Your task to perform on an android device: see creations saved in the google photos Image 0: 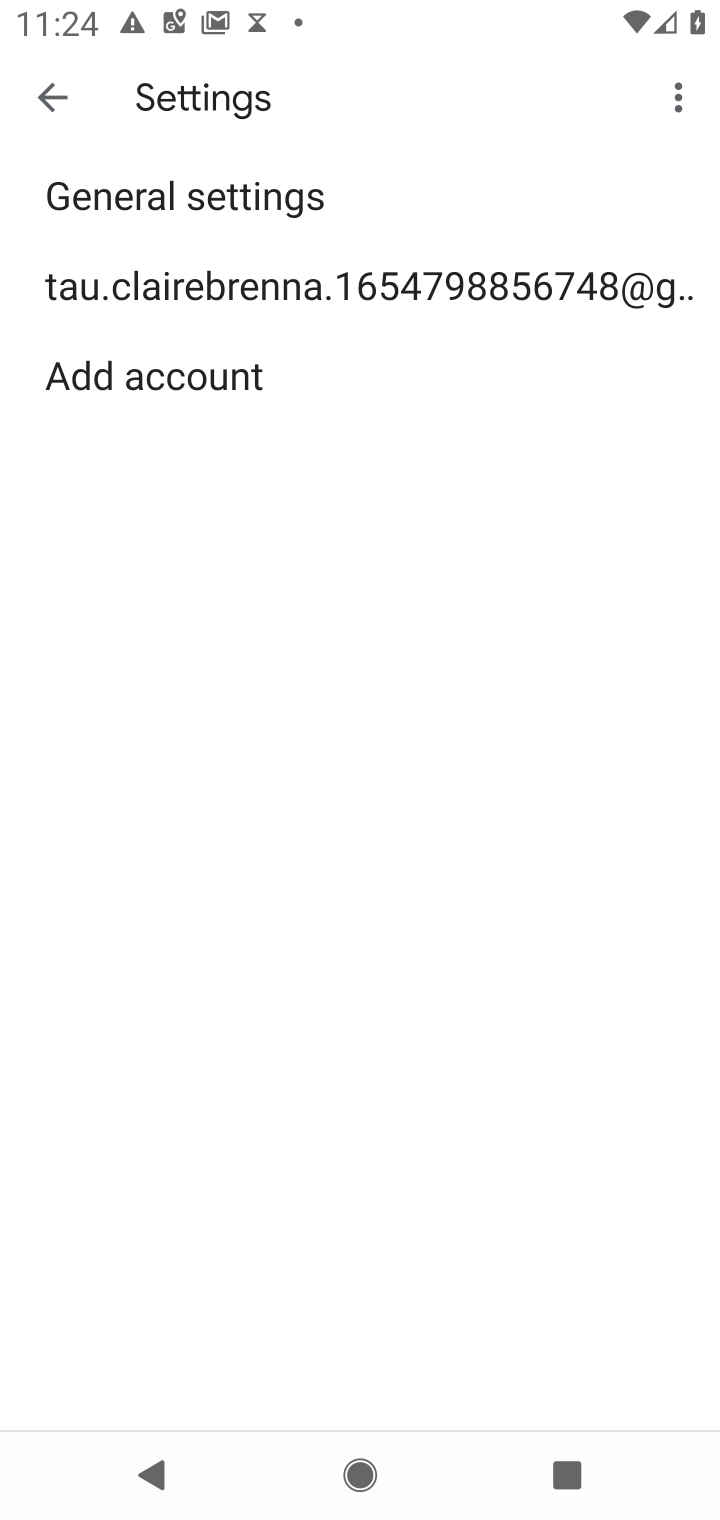
Step 0: press home button
Your task to perform on an android device: see creations saved in the google photos Image 1: 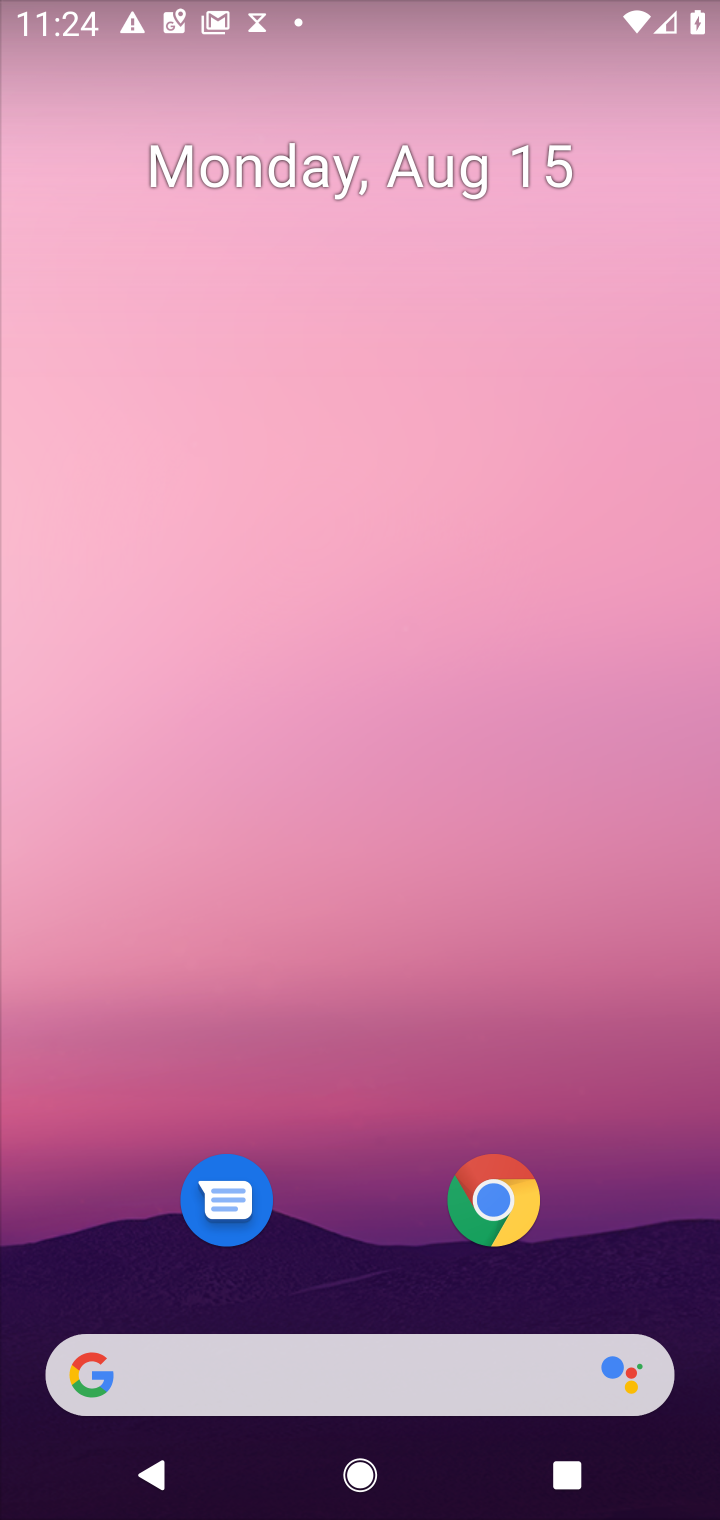
Step 1: drag from (354, 1122) to (361, 113)
Your task to perform on an android device: see creations saved in the google photos Image 2: 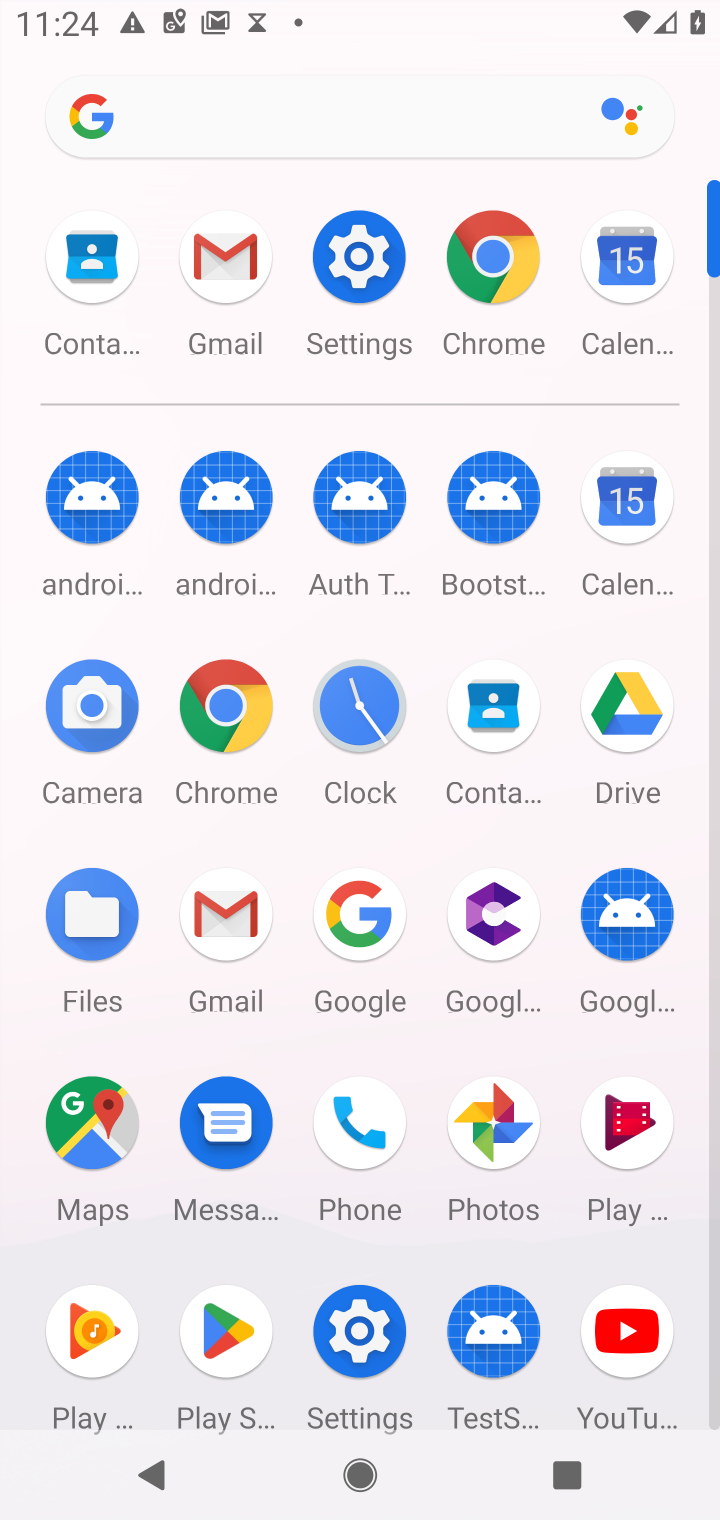
Step 2: click (484, 1147)
Your task to perform on an android device: see creations saved in the google photos Image 3: 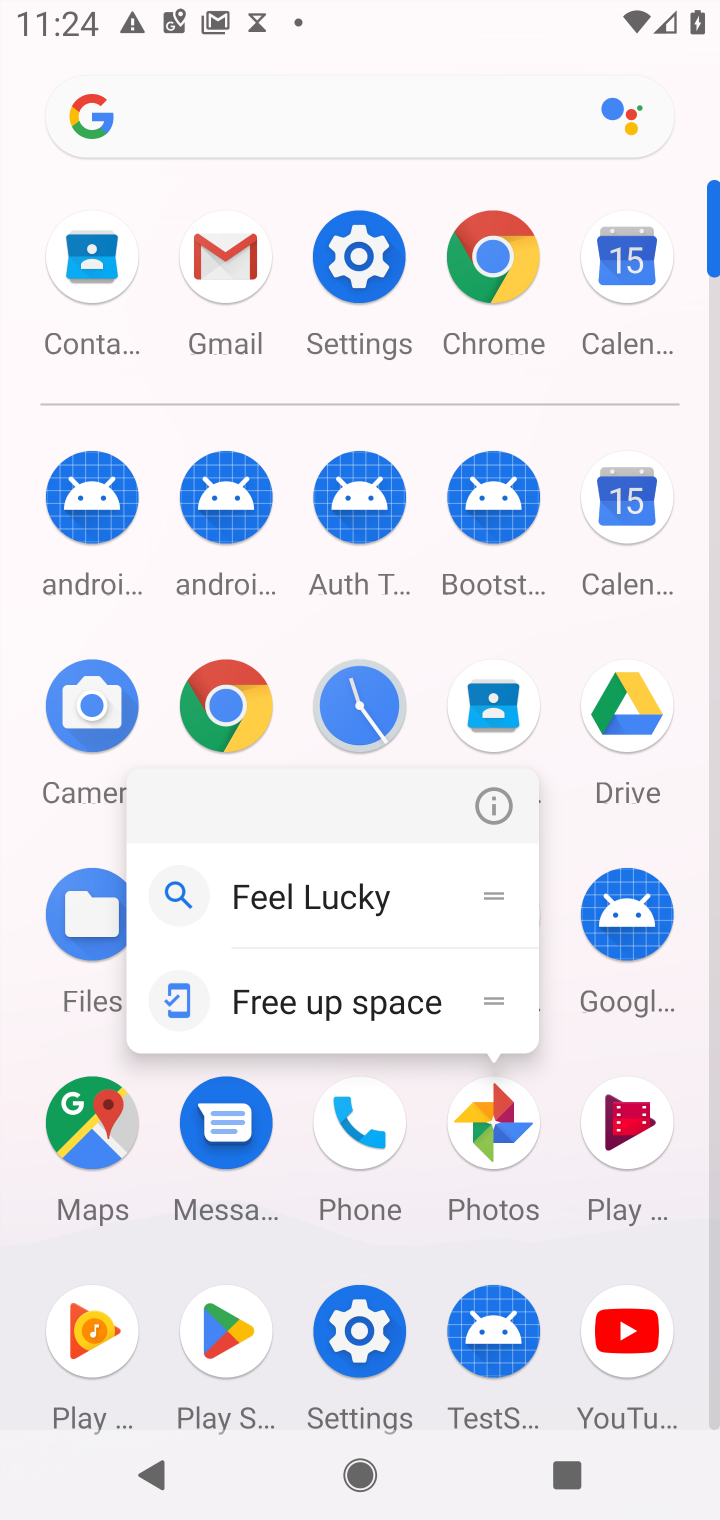
Step 3: click (484, 1147)
Your task to perform on an android device: see creations saved in the google photos Image 4: 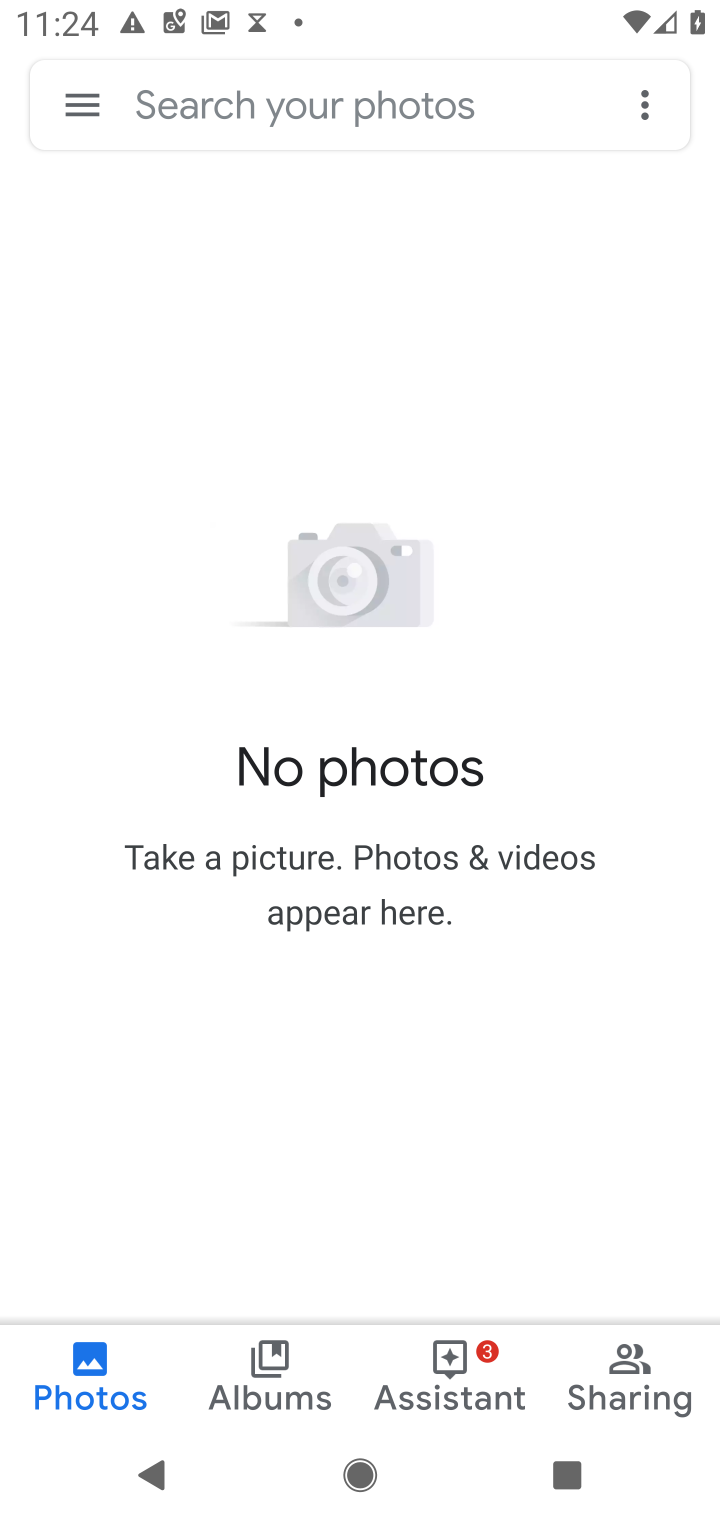
Step 4: click (334, 120)
Your task to perform on an android device: see creations saved in the google photos Image 5: 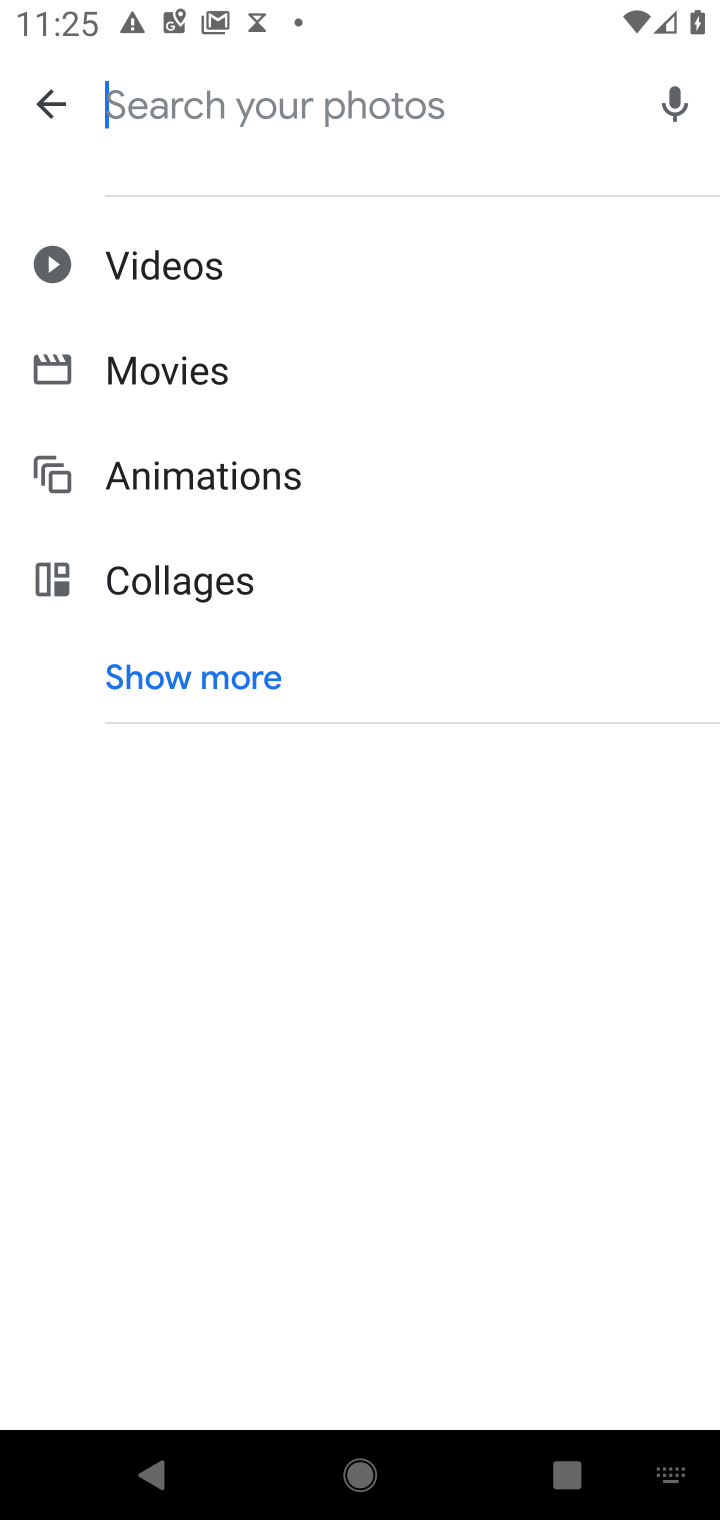
Step 5: click (235, 667)
Your task to perform on an android device: see creations saved in the google photos Image 6: 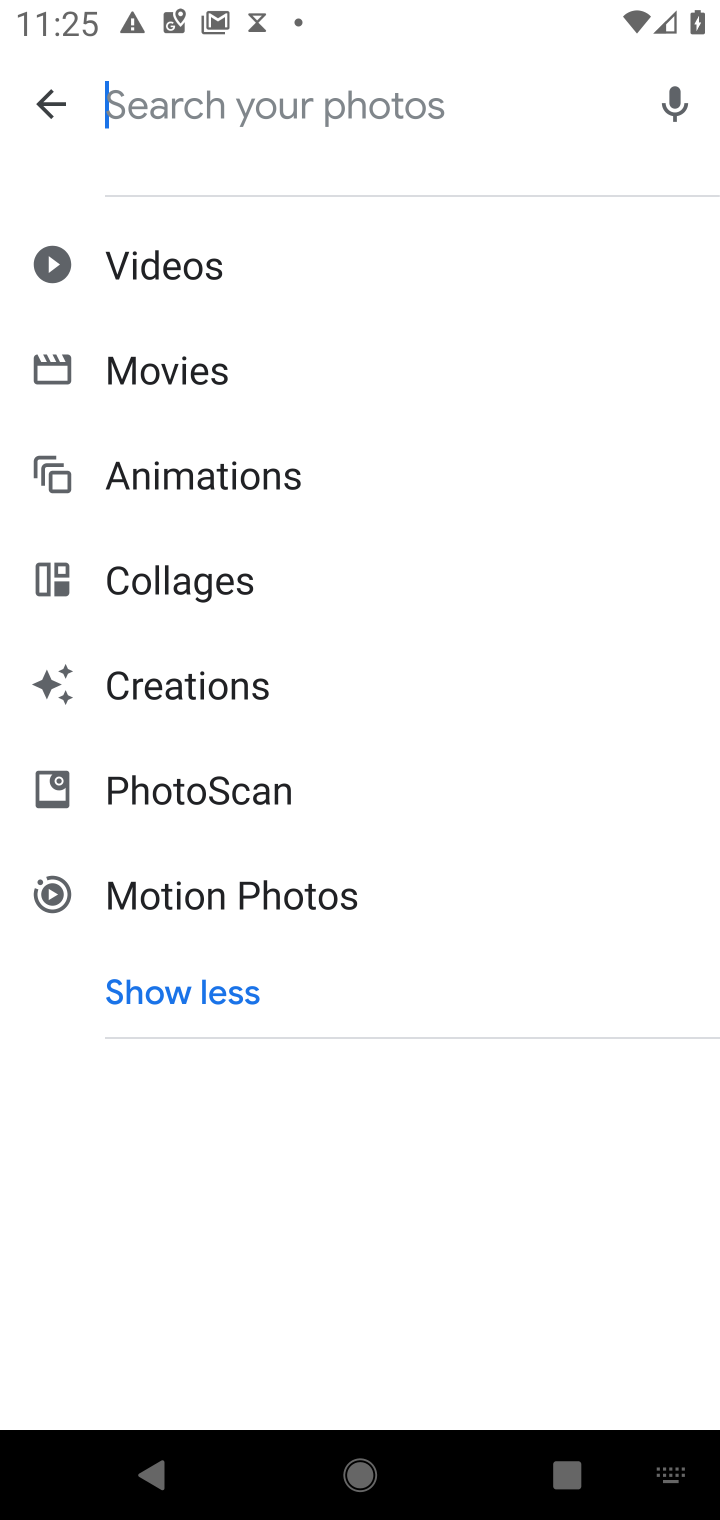
Step 6: click (228, 683)
Your task to perform on an android device: see creations saved in the google photos Image 7: 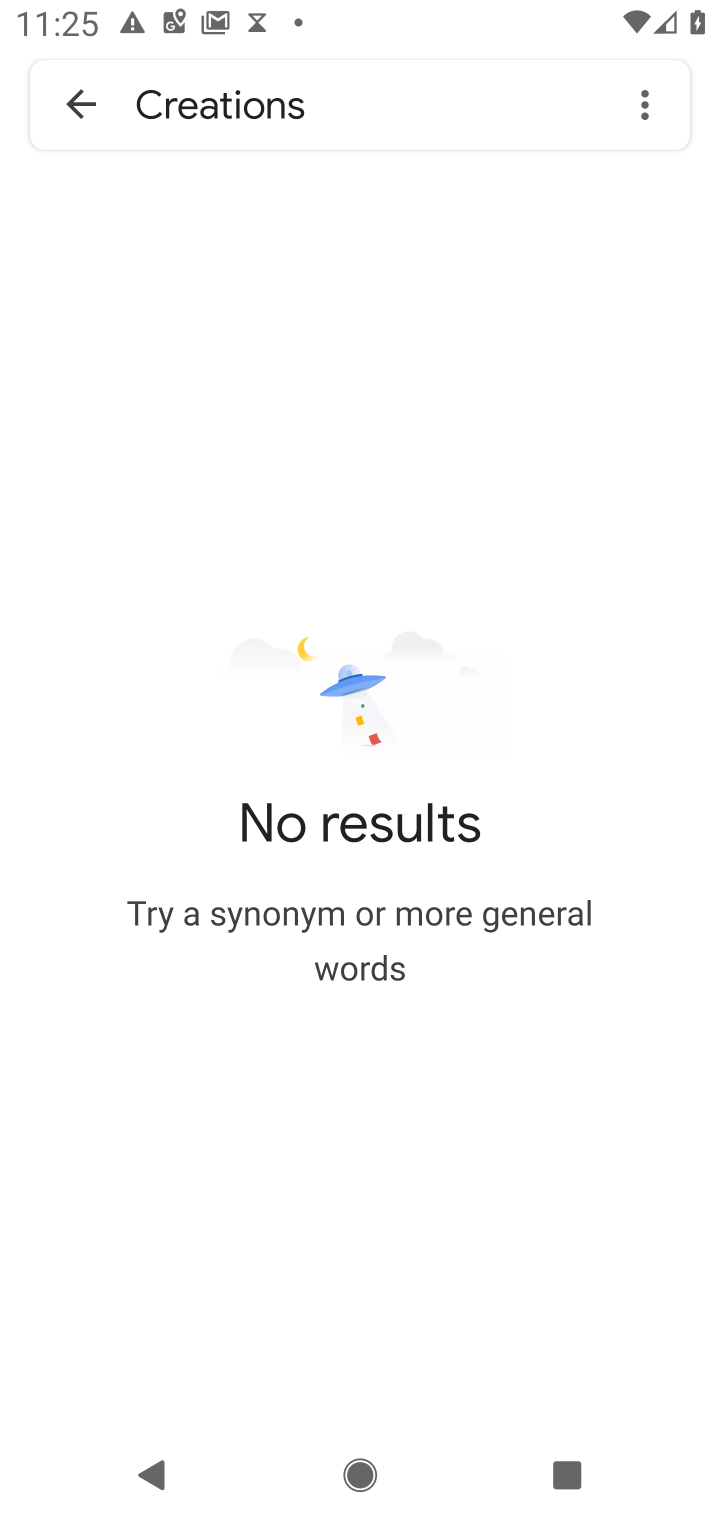
Step 7: task complete